Your task to perform on an android device: open app "PlayWell" (install if not already installed) Image 0: 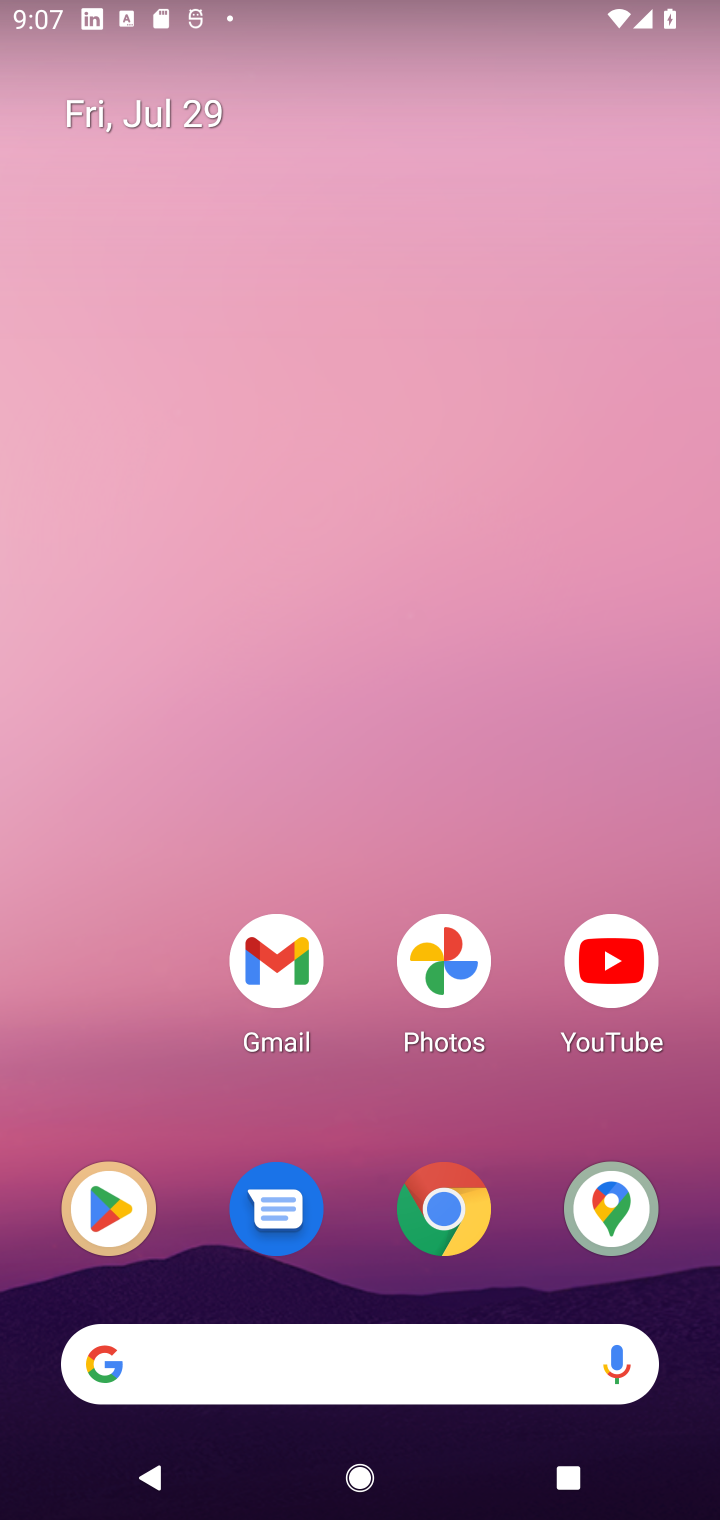
Step 0: click (132, 1213)
Your task to perform on an android device: open app "PlayWell" (install if not already installed) Image 1: 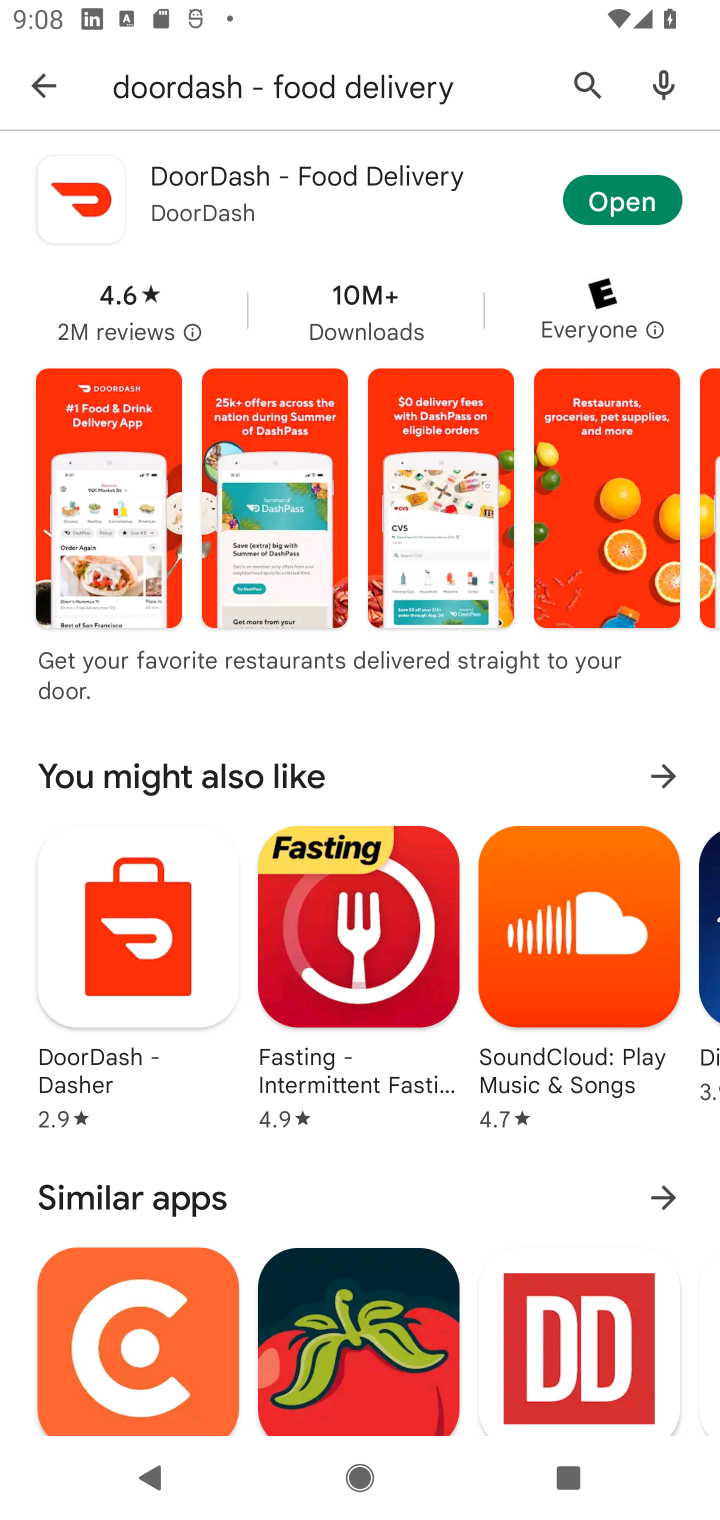
Step 1: click (590, 86)
Your task to perform on an android device: open app "PlayWell" (install if not already installed) Image 2: 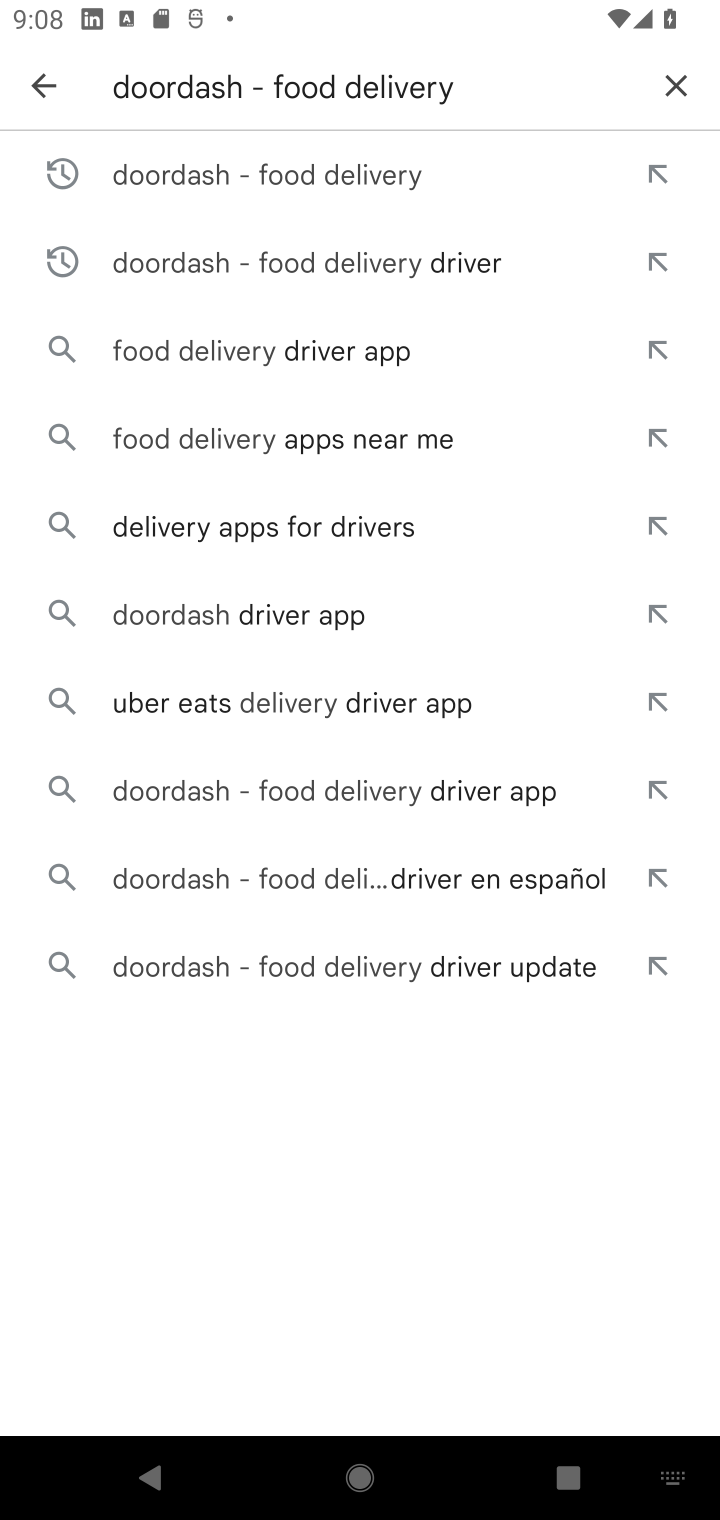
Step 2: click (666, 88)
Your task to perform on an android device: open app "PlayWell" (install if not already installed) Image 3: 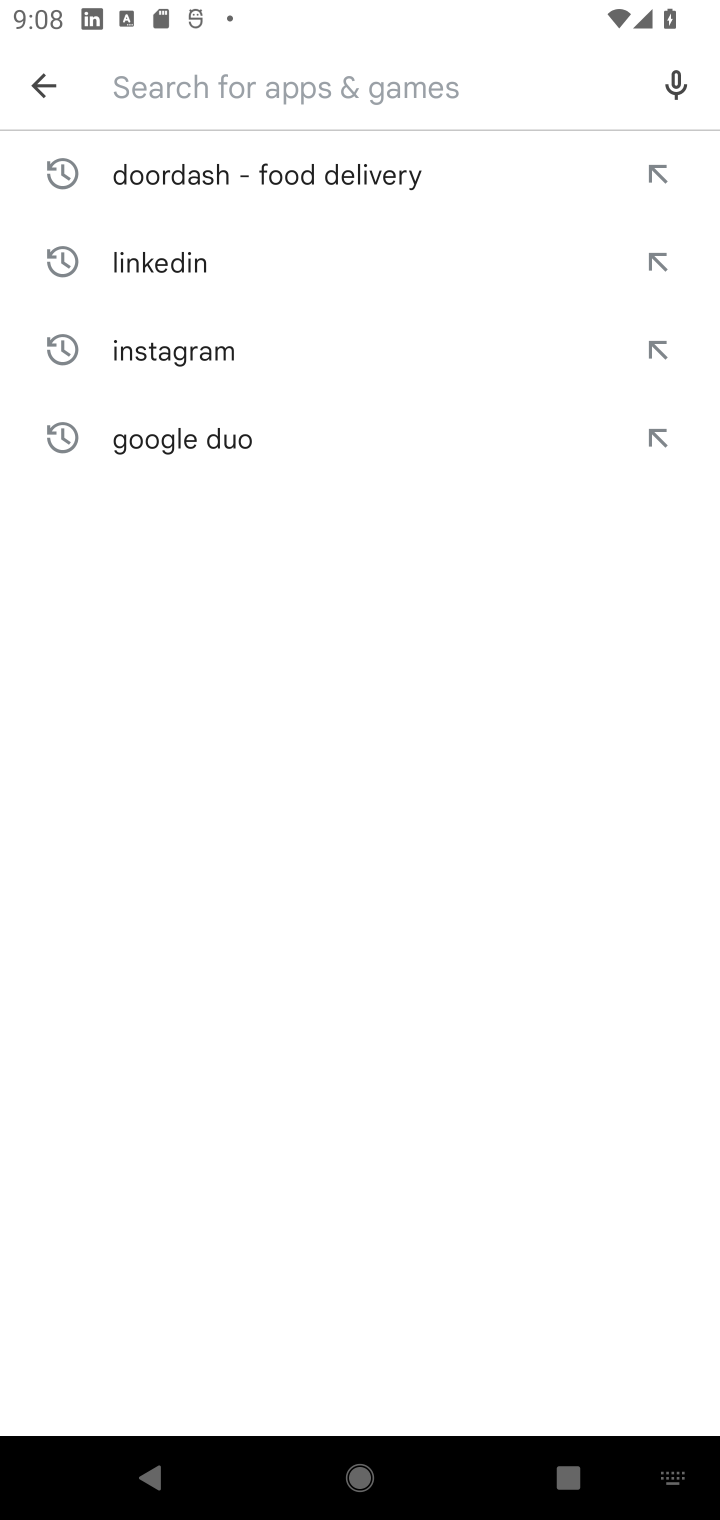
Step 3: type "PlayWell"
Your task to perform on an android device: open app "PlayWell" (install if not already installed) Image 4: 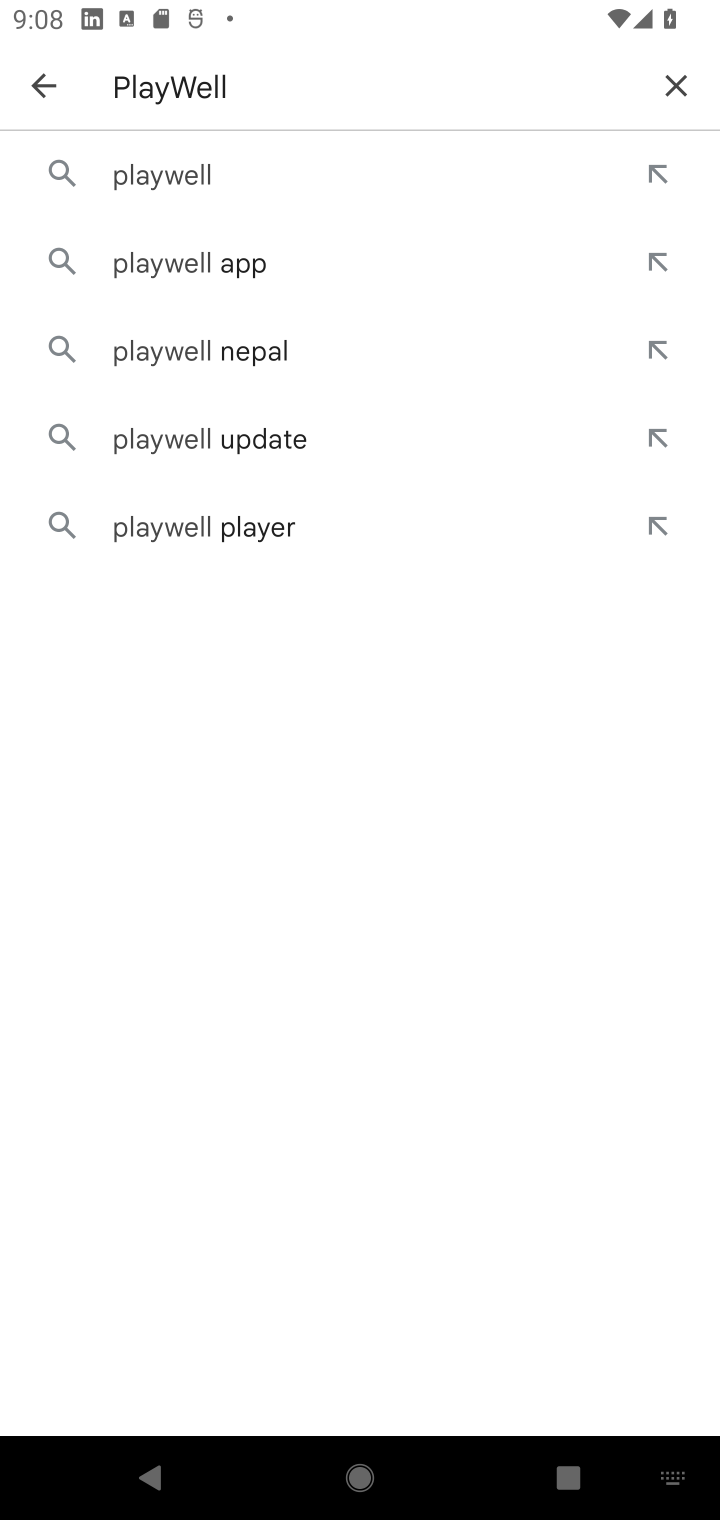
Step 4: click (192, 176)
Your task to perform on an android device: open app "PlayWell" (install if not already installed) Image 5: 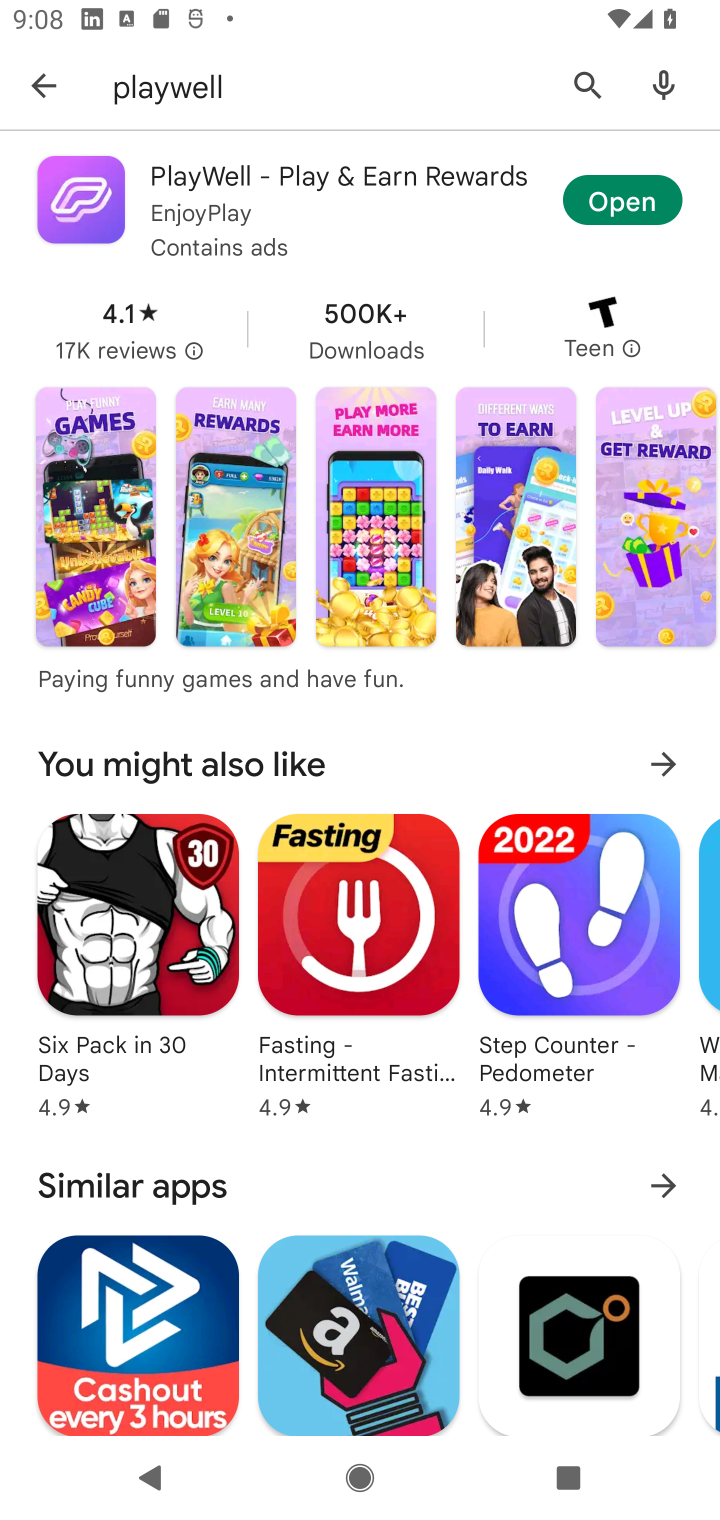
Step 5: click (610, 198)
Your task to perform on an android device: open app "PlayWell" (install if not already installed) Image 6: 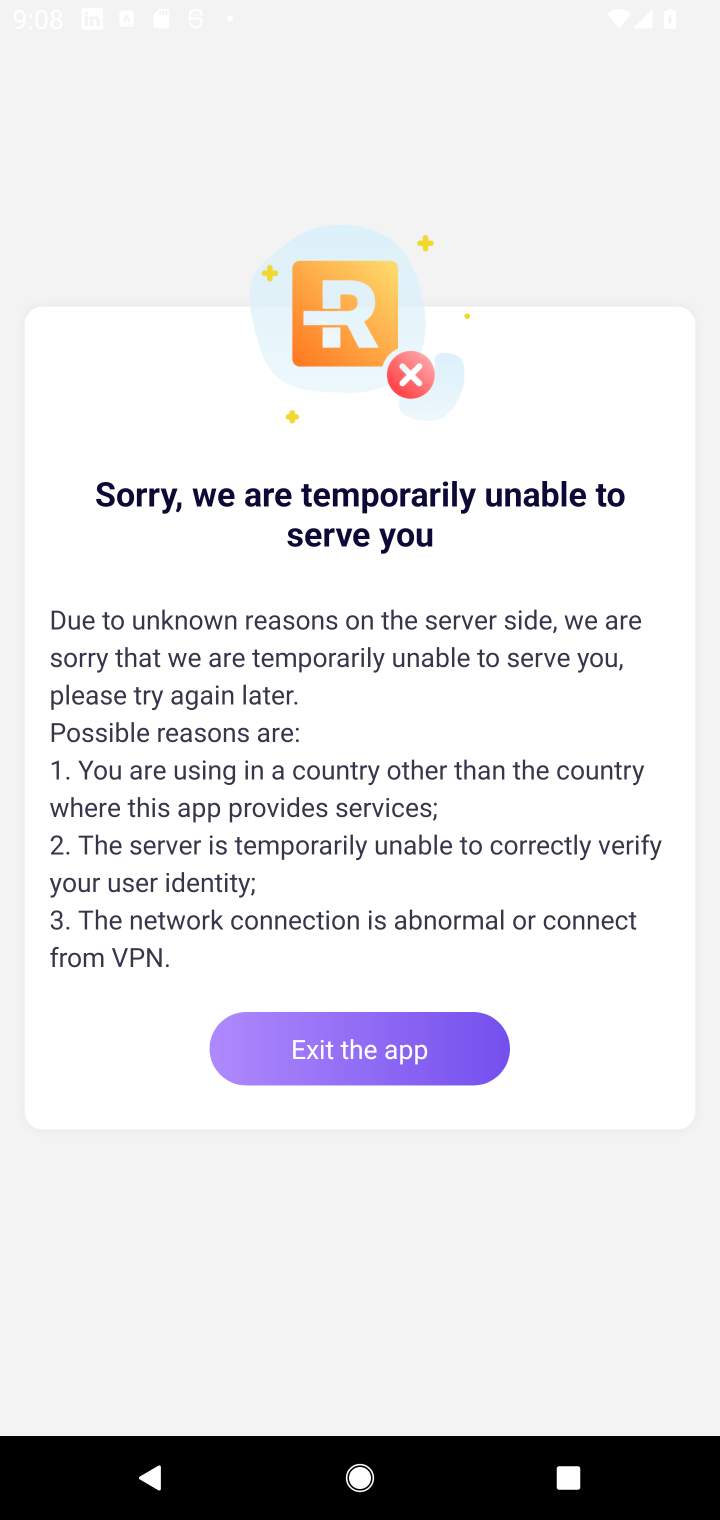
Step 6: task complete